Your task to perform on an android device: star an email in the gmail app Image 0: 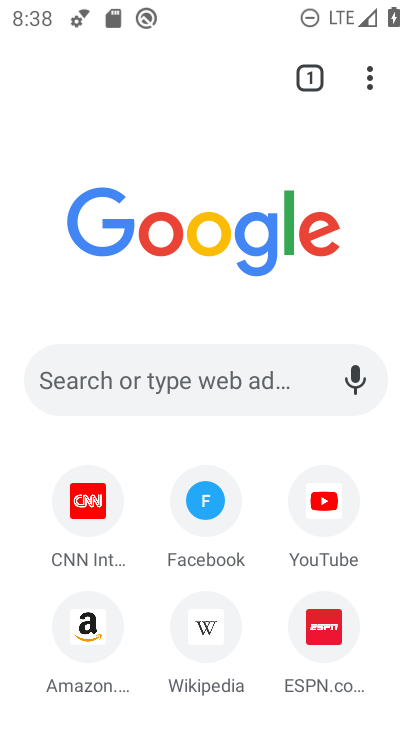
Step 0: press back button
Your task to perform on an android device: star an email in the gmail app Image 1: 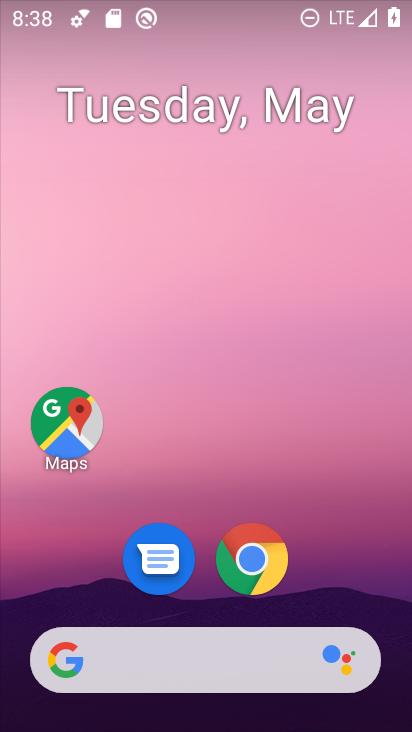
Step 1: drag from (198, 573) to (331, 69)
Your task to perform on an android device: star an email in the gmail app Image 2: 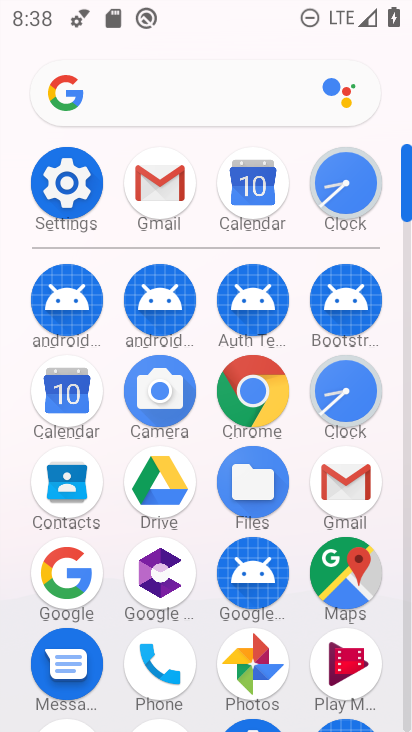
Step 2: click (166, 194)
Your task to perform on an android device: star an email in the gmail app Image 3: 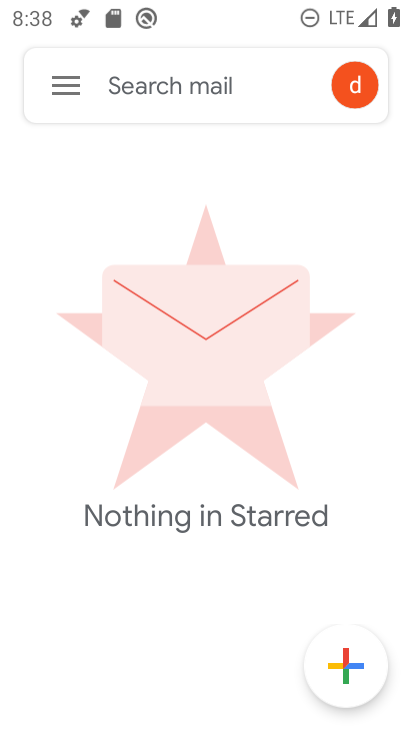
Step 3: click (64, 83)
Your task to perform on an android device: star an email in the gmail app Image 4: 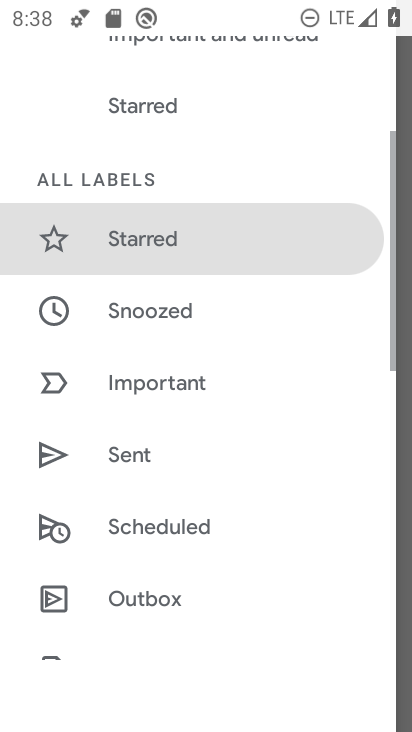
Step 4: drag from (203, 595) to (277, 146)
Your task to perform on an android device: star an email in the gmail app Image 5: 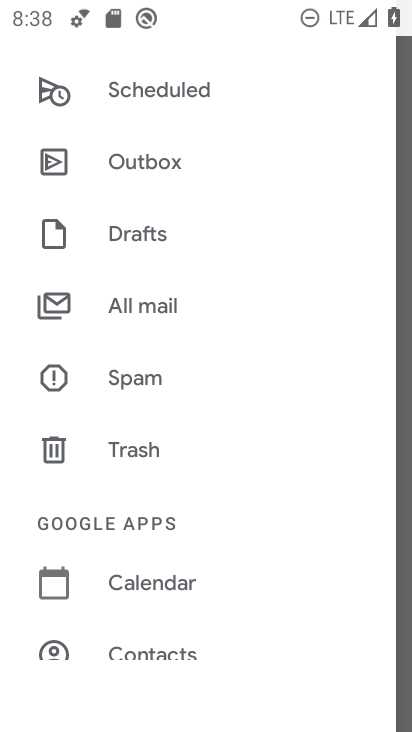
Step 5: click (145, 311)
Your task to perform on an android device: star an email in the gmail app Image 6: 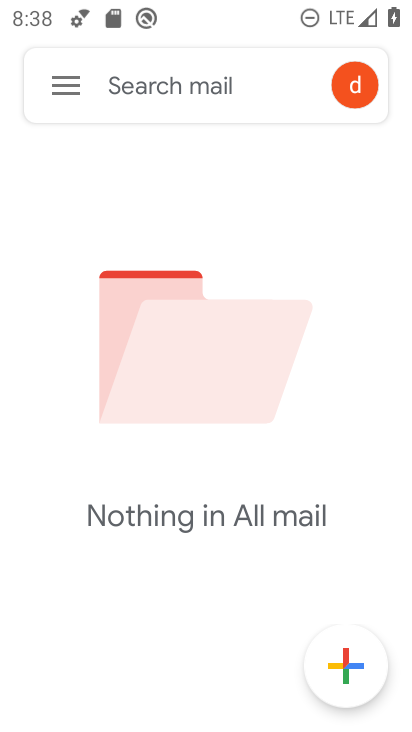
Step 6: task complete